Your task to perform on an android device: turn off improve location accuracy Image 0: 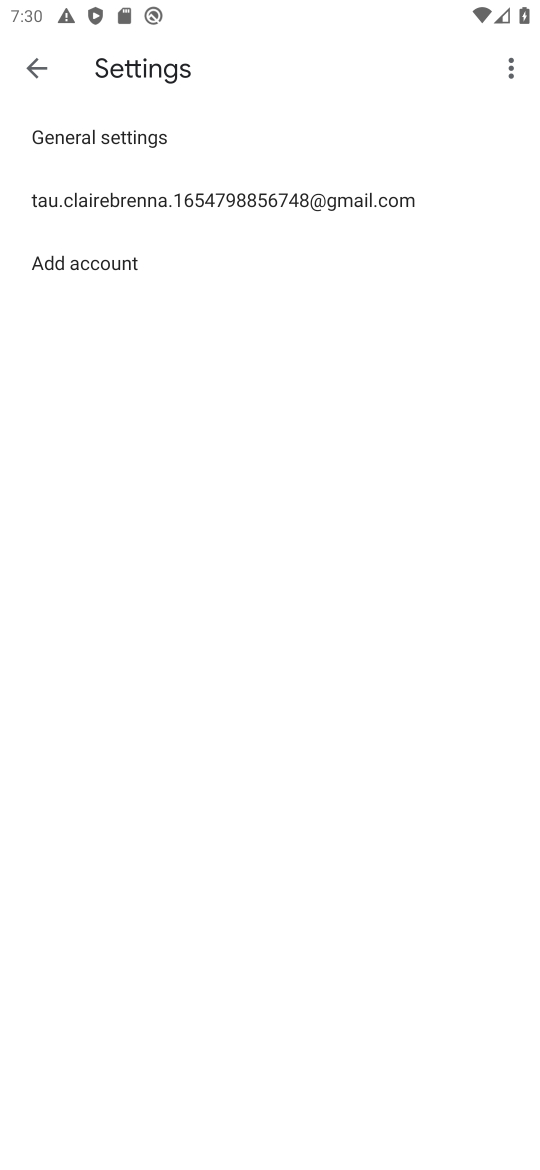
Step 0: press home button
Your task to perform on an android device: turn off improve location accuracy Image 1: 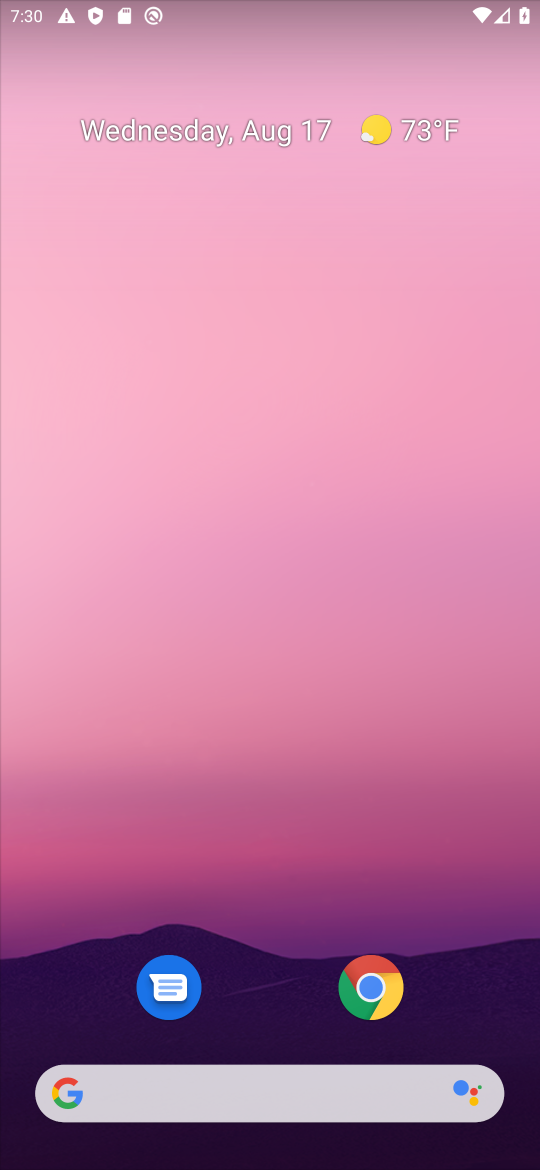
Step 1: drag from (483, 1004) to (329, 19)
Your task to perform on an android device: turn off improve location accuracy Image 2: 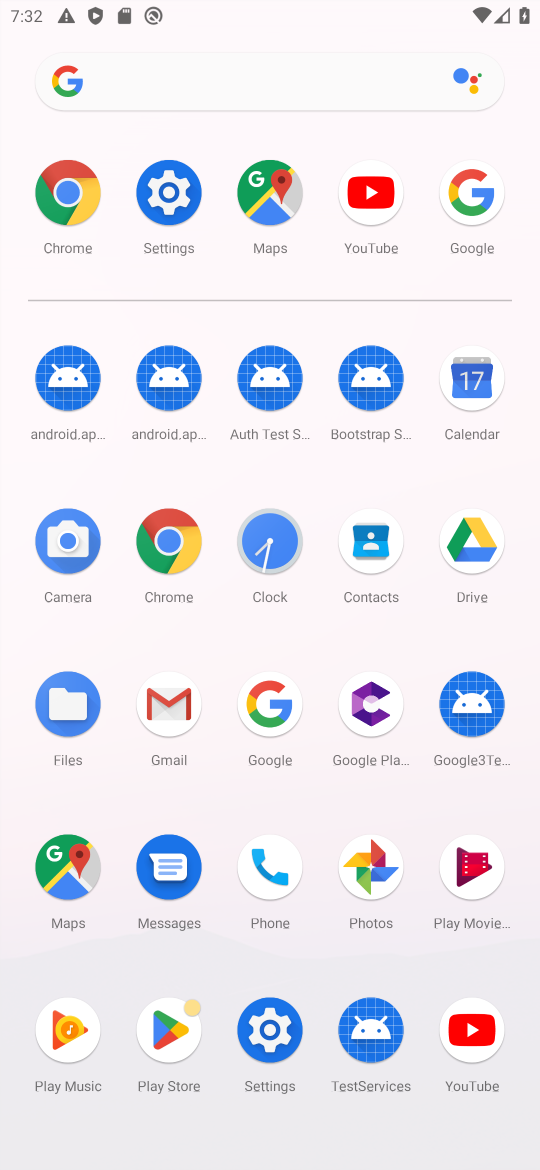
Step 2: click (277, 1017)
Your task to perform on an android device: turn off improve location accuracy Image 3: 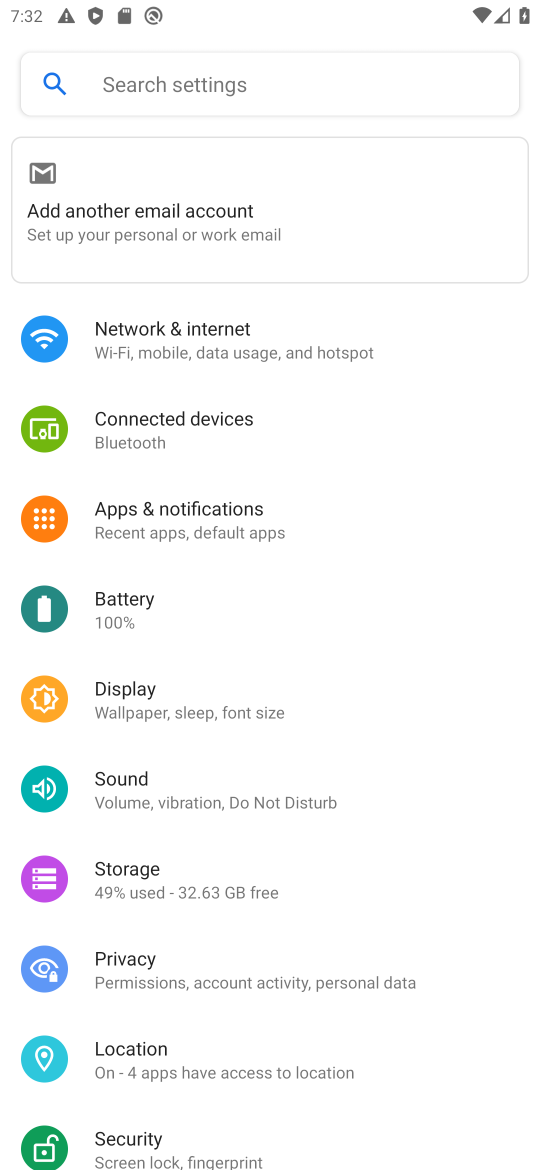
Step 3: click (173, 1067)
Your task to perform on an android device: turn off improve location accuracy Image 4: 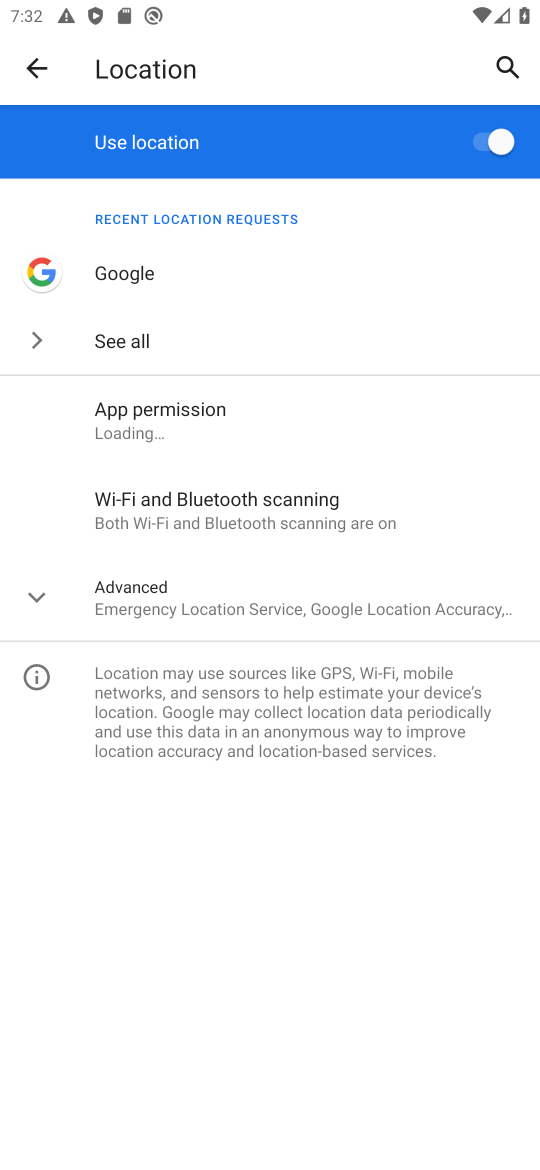
Step 4: click (134, 596)
Your task to perform on an android device: turn off improve location accuracy Image 5: 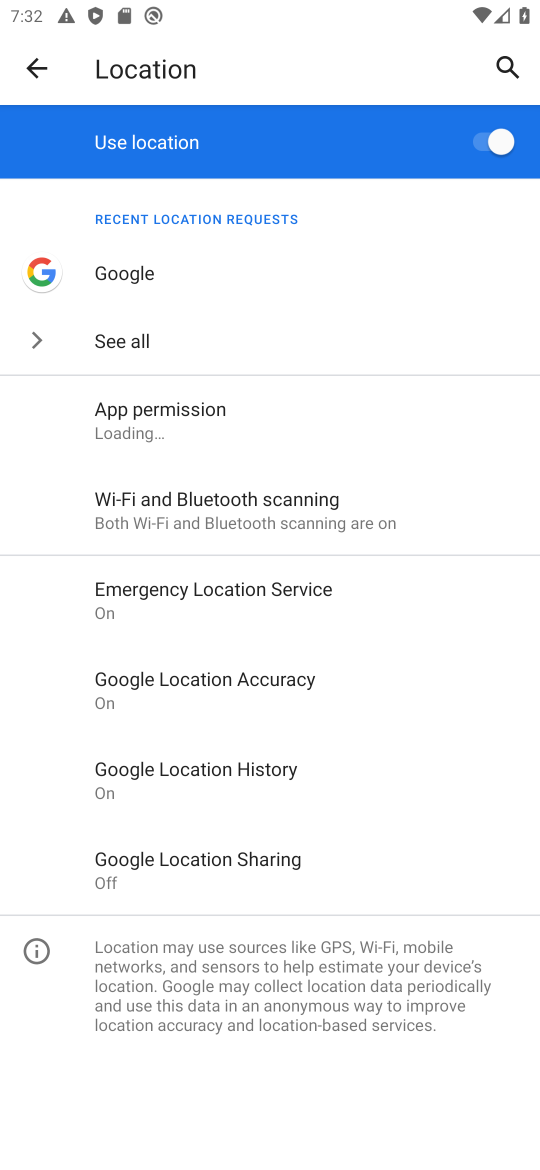
Step 5: click (212, 681)
Your task to perform on an android device: turn off improve location accuracy Image 6: 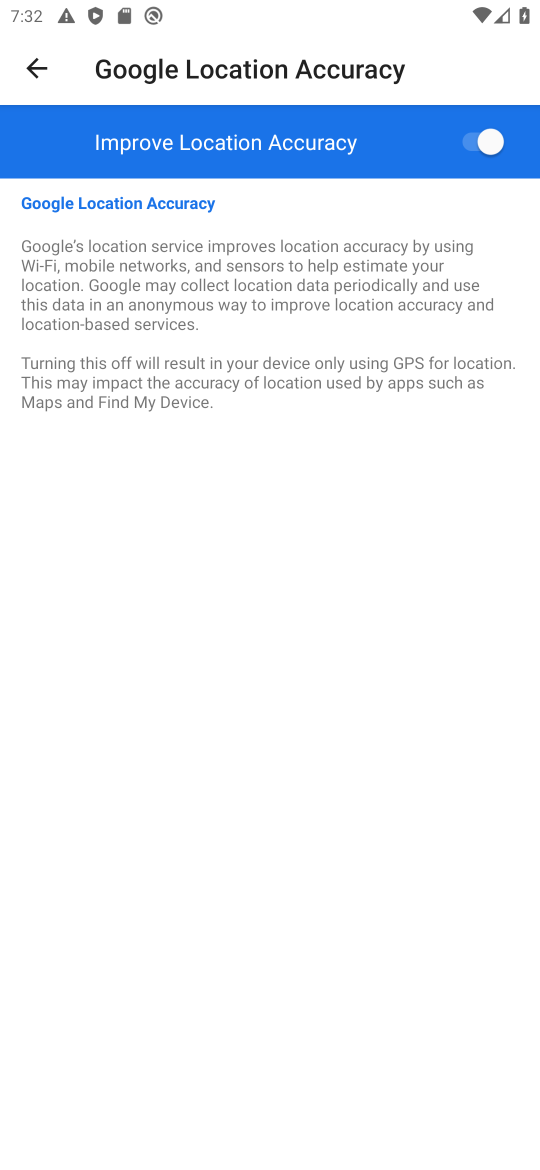
Step 6: click (499, 128)
Your task to perform on an android device: turn off improve location accuracy Image 7: 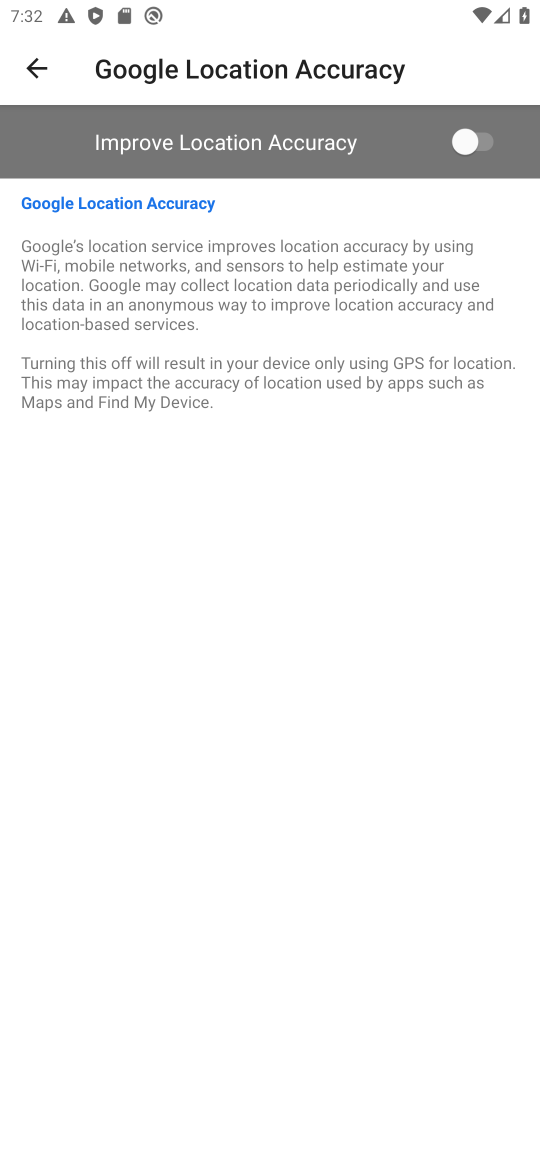
Step 7: task complete